Your task to perform on an android device: Open the calendar app, open the side menu, and click the "Day" option Image 0: 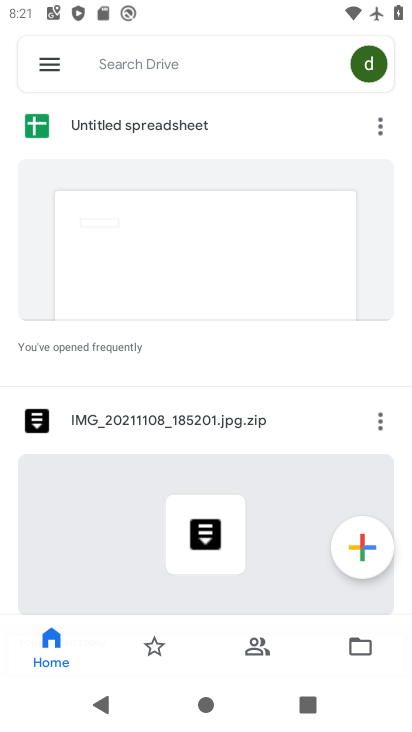
Step 0: press home button
Your task to perform on an android device: Open the calendar app, open the side menu, and click the "Day" option Image 1: 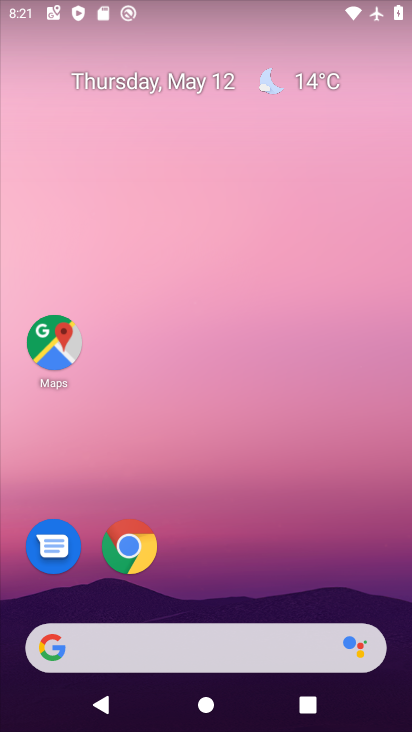
Step 1: drag from (202, 646) to (380, 54)
Your task to perform on an android device: Open the calendar app, open the side menu, and click the "Day" option Image 2: 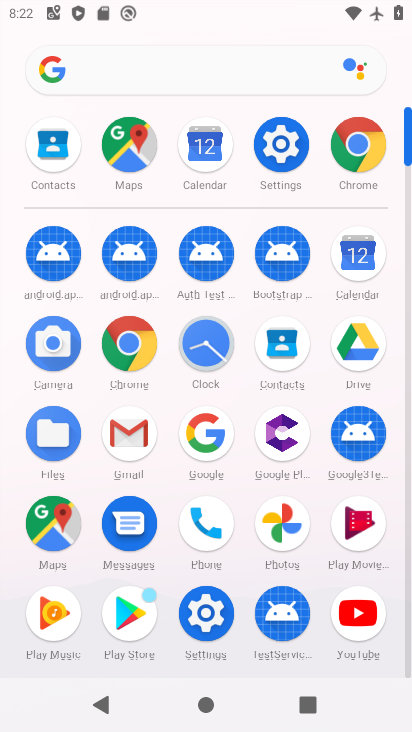
Step 2: click (343, 249)
Your task to perform on an android device: Open the calendar app, open the side menu, and click the "Day" option Image 3: 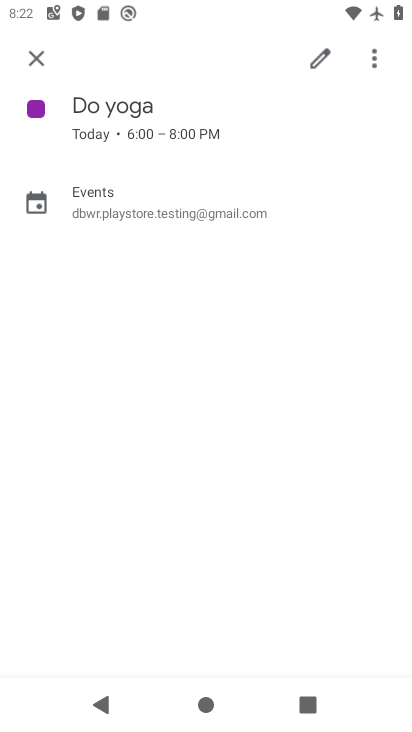
Step 3: click (35, 60)
Your task to perform on an android device: Open the calendar app, open the side menu, and click the "Day" option Image 4: 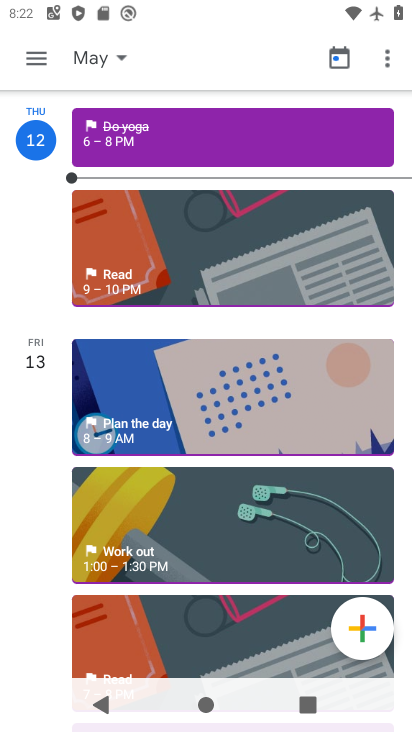
Step 4: click (44, 54)
Your task to perform on an android device: Open the calendar app, open the side menu, and click the "Day" option Image 5: 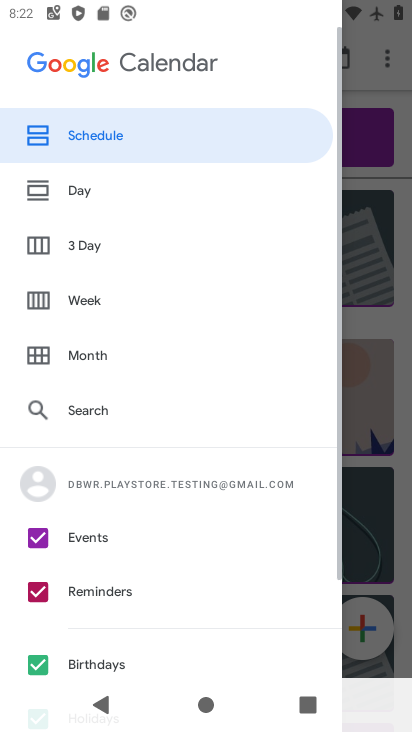
Step 5: click (89, 185)
Your task to perform on an android device: Open the calendar app, open the side menu, and click the "Day" option Image 6: 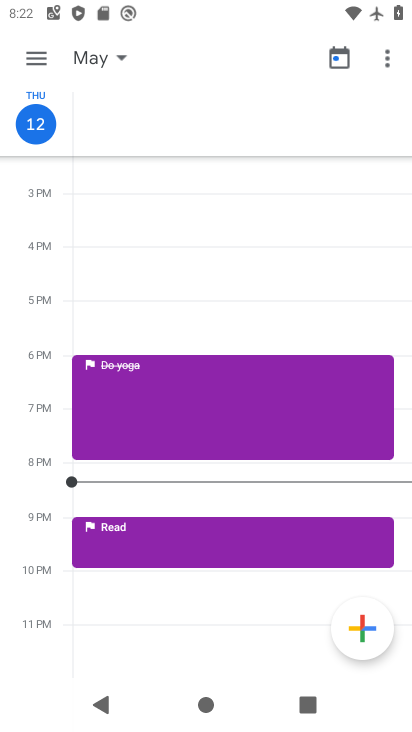
Step 6: task complete